Your task to perform on an android device: turn off improve location accuracy Image 0: 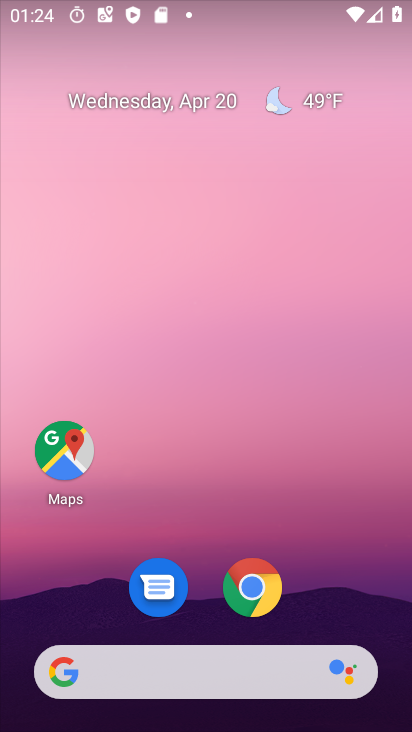
Step 0: drag from (357, 600) to (355, 4)
Your task to perform on an android device: turn off improve location accuracy Image 1: 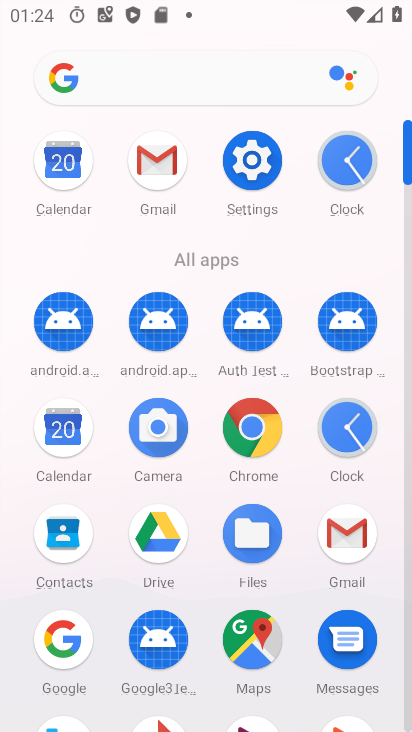
Step 1: click (254, 174)
Your task to perform on an android device: turn off improve location accuracy Image 2: 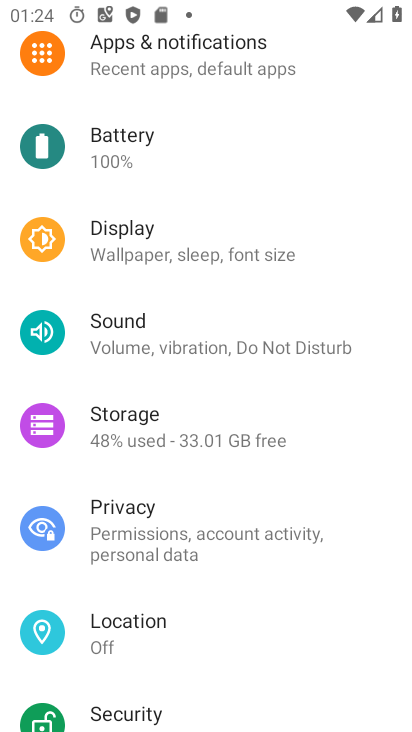
Step 2: click (108, 635)
Your task to perform on an android device: turn off improve location accuracy Image 3: 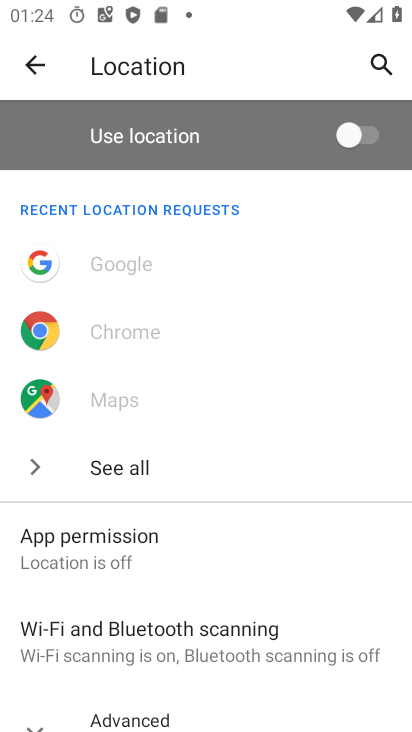
Step 3: drag from (238, 577) to (232, 251)
Your task to perform on an android device: turn off improve location accuracy Image 4: 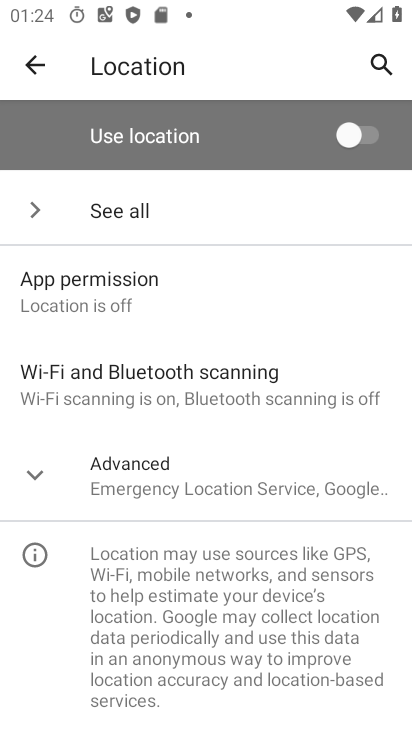
Step 4: click (27, 484)
Your task to perform on an android device: turn off improve location accuracy Image 5: 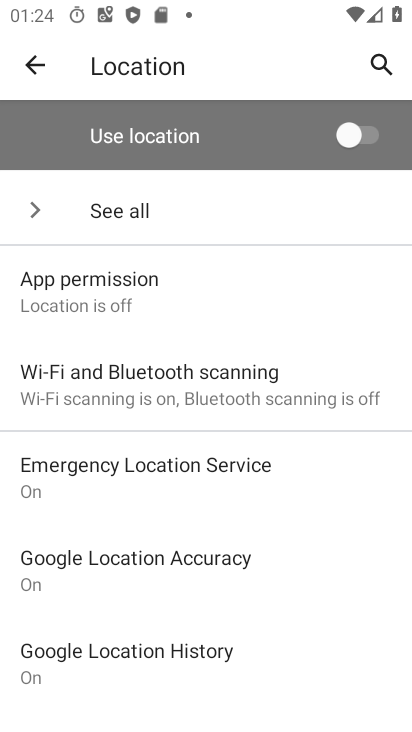
Step 5: click (102, 560)
Your task to perform on an android device: turn off improve location accuracy Image 6: 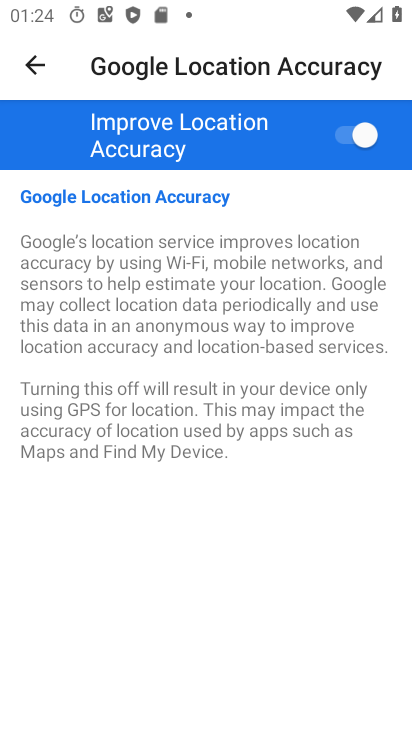
Step 6: click (356, 126)
Your task to perform on an android device: turn off improve location accuracy Image 7: 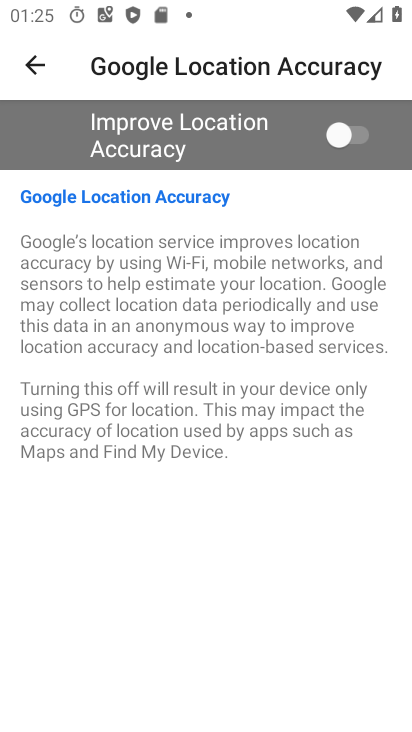
Step 7: task complete